Your task to perform on an android device: change notifications settings Image 0: 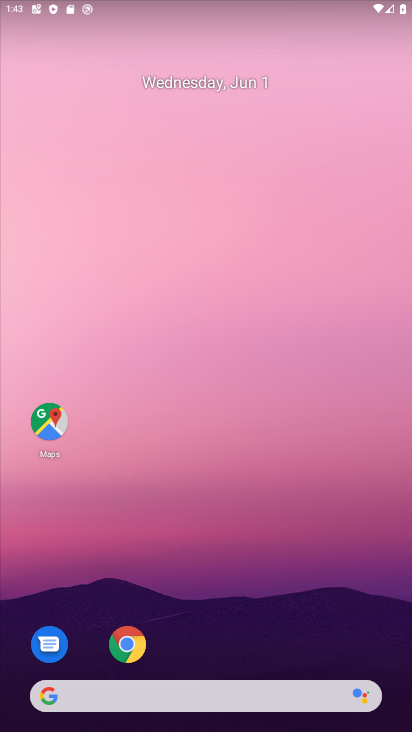
Step 0: drag from (247, 402) to (76, 6)
Your task to perform on an android device: change notifications settings Image 1: 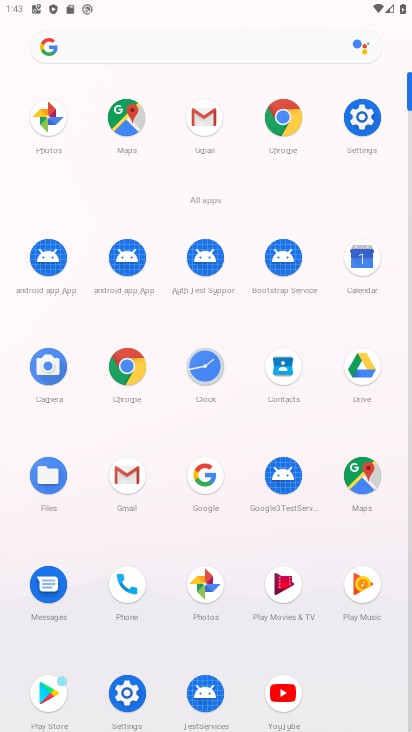
Step 1: drag from (121, 521) to (169, 155)
Your task to perform on an android device: change notifications settings Image 2: 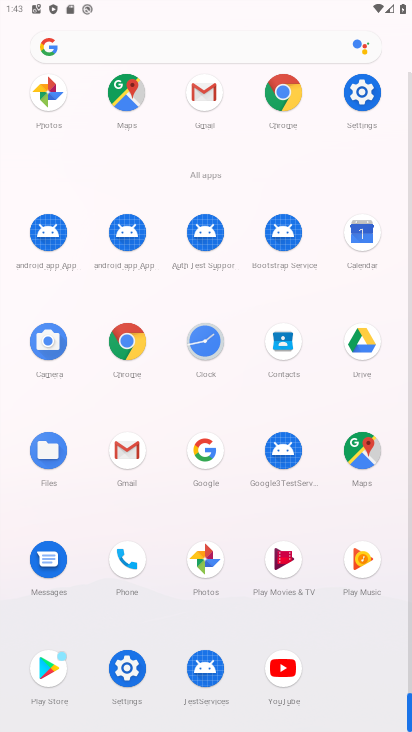
Step 2: click (360, 85)
Your task to perform on an android device: change notifications settings Image 3: 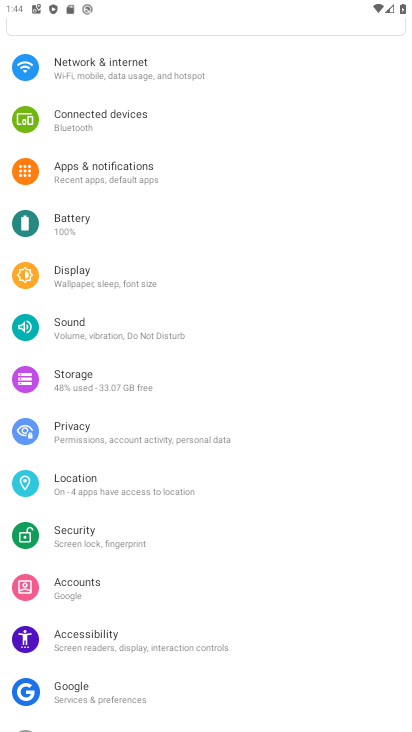
Step 3: click (112, 173)
Your task to perform on an android device: change notifications settings Image 4: 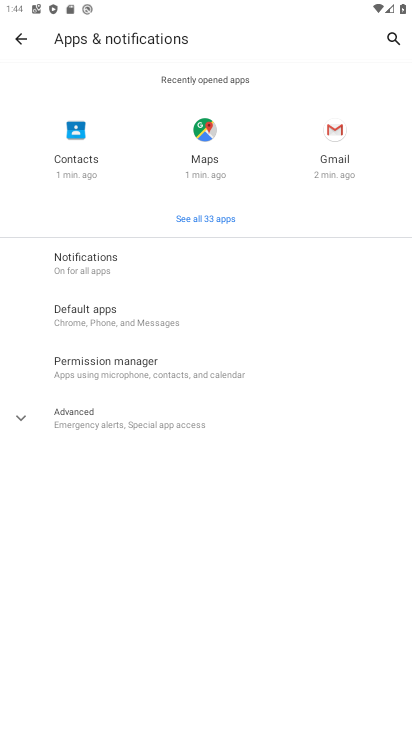
Step 4: task complete